Your task to perform on an android device: Open Chrome and go to settings Image 0: 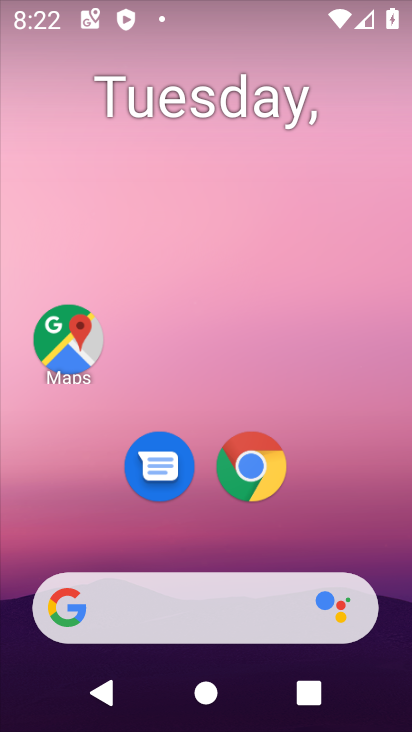
Step 0: click (256, 470)
Your task to perform on an android device: Open Chrome and go to settings Image 1: 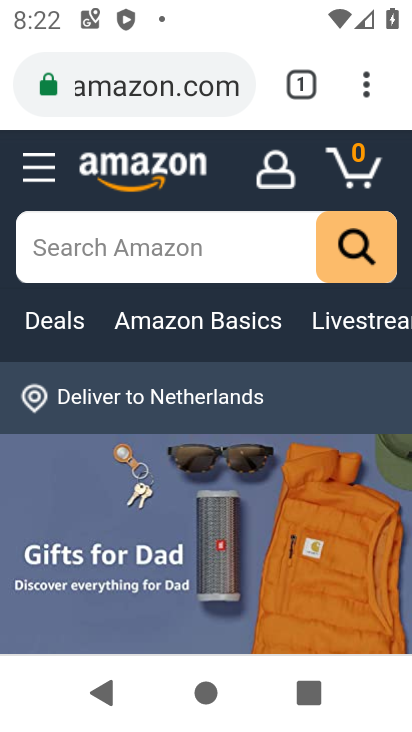
Step 1: click (367, 90)
Your task to perform on an android device: Open Chrome and go to settings Image 2: 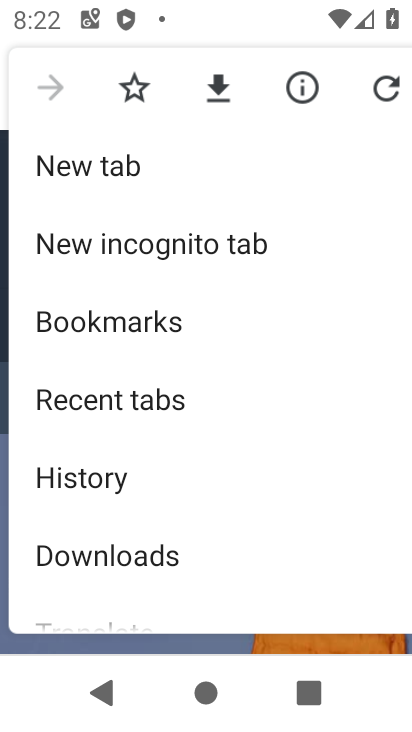
Step 2: drag from (168, 525) to (203, 128)
Your task to perform on an android device: Open Chrome and go to settings Image 3: 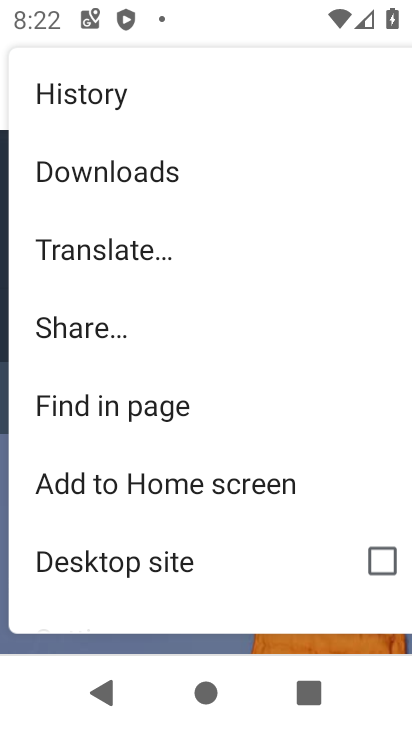
Step 3: drag from (130, 502) to (197, 52)
Your task to perform on an android device: Open Chrome and go to settings Image 4: 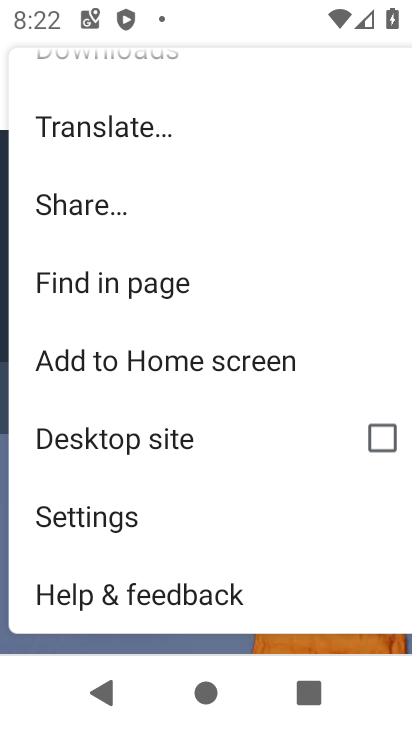
Step 4: click (123, 510)
Your task to perform on an android device: Open Chrome and go to settings Image 5: 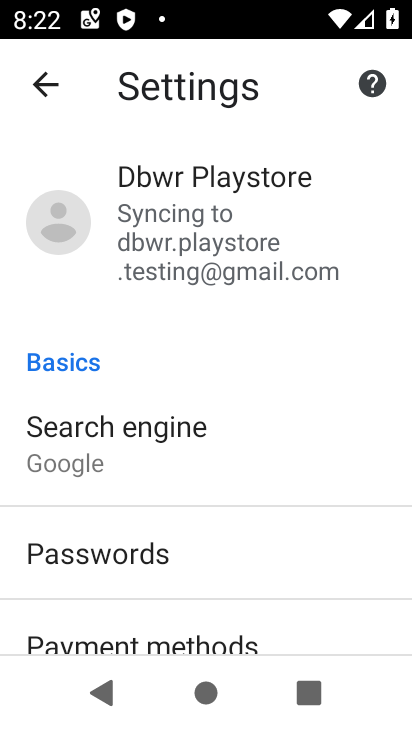
Step 5: task complete